Your task to perform on an android device: change timer sound Image 0: 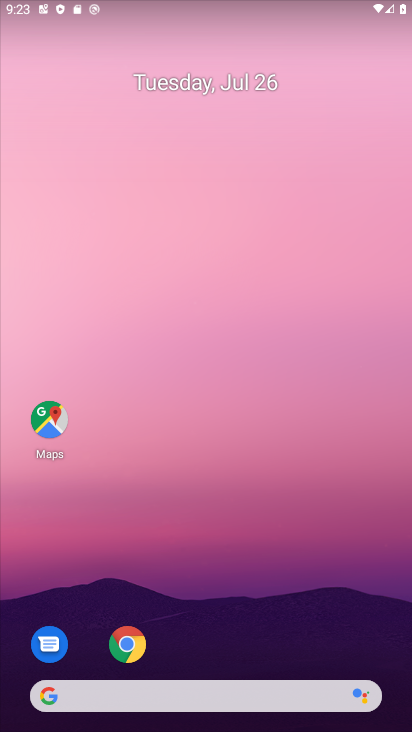
Step 0: drag from (227, 655) to (250, 194)
Your task to perform on an android device: change timer sound Image 1: 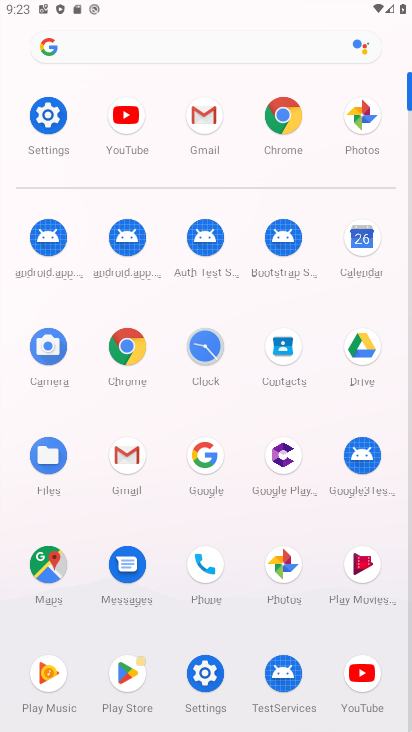
Step 1: click (208, 362)
Your task to perform on an android device: change timer sound Image 2: 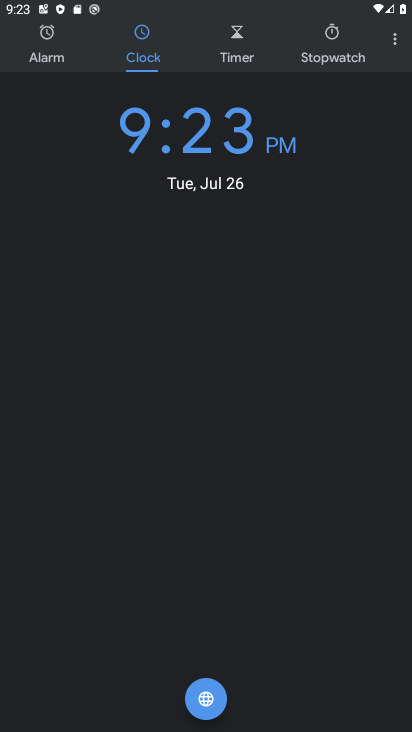
Step 2: click (230, 49)
Your task to perform on an android device: change timer sound Image 3: 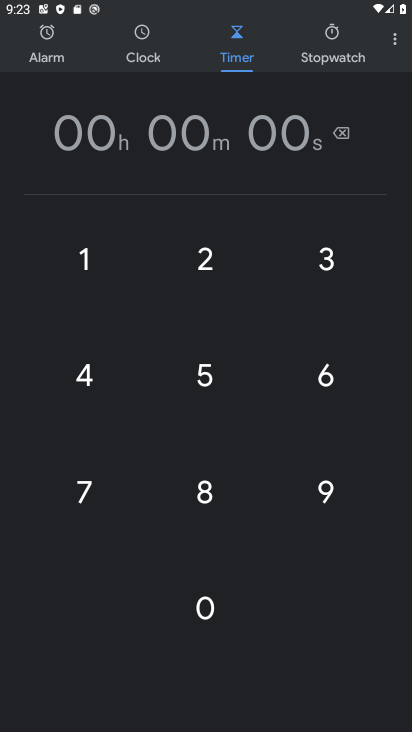
Step 3: click (335, 490)
Your task to perform on an android device: change timer sound Image 4: 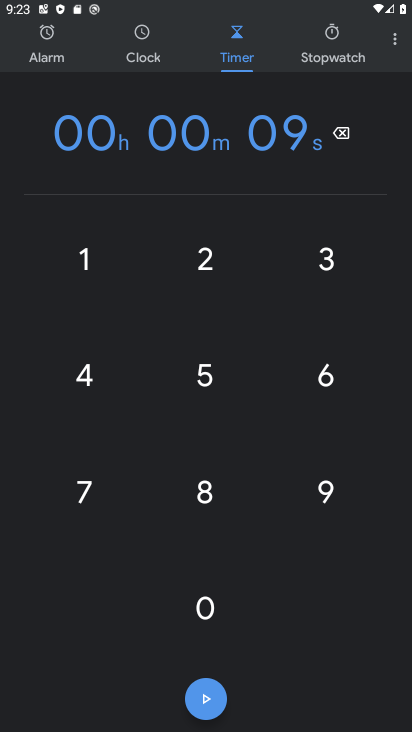
Step 4: click (193, 369)
Your task to perform on an android device: change timer sound Image 5: 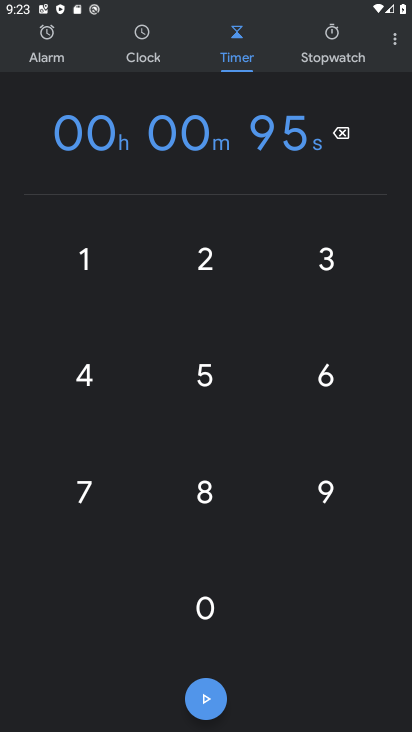
Step 5: click (339, 274)
Your task to perform on an android device: change timer sound Image 6: 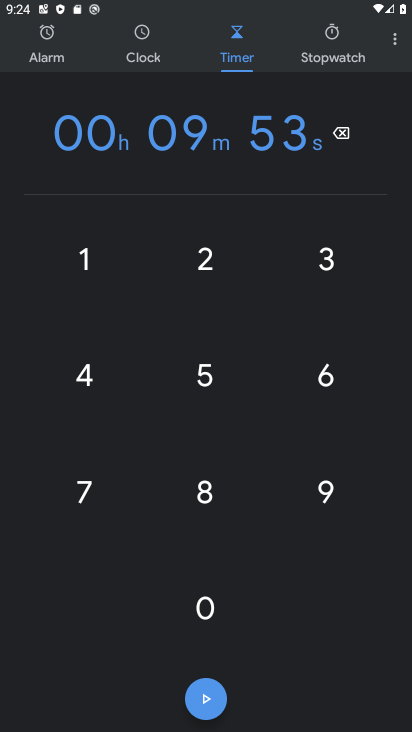
Step 6: click (193, 700)
Your task to perform on an android device: change timer sound Image 7: 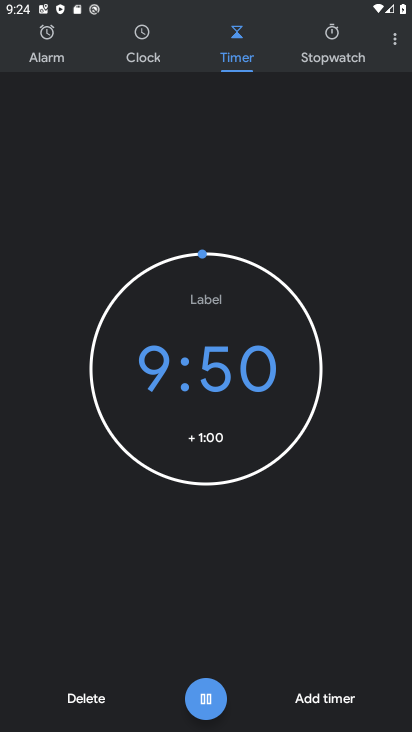
Step 7: task complete